Your task to perform on an android device: Go to privacy settings Image 0: 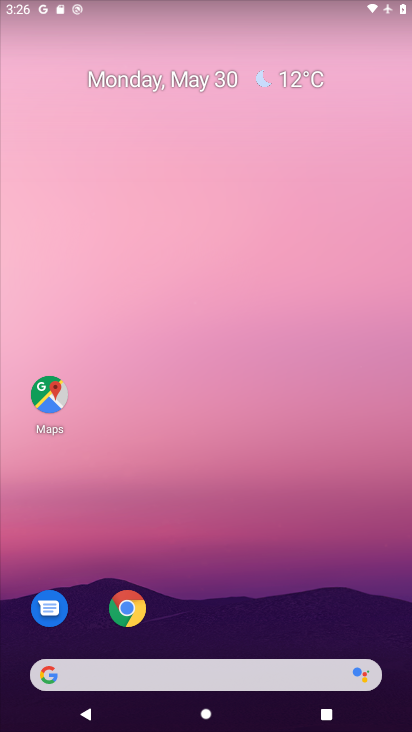
Step 0: drag from (278, 458) to (164, 2)
Your task to perform on an android device: Go to privacy settings Image 1: 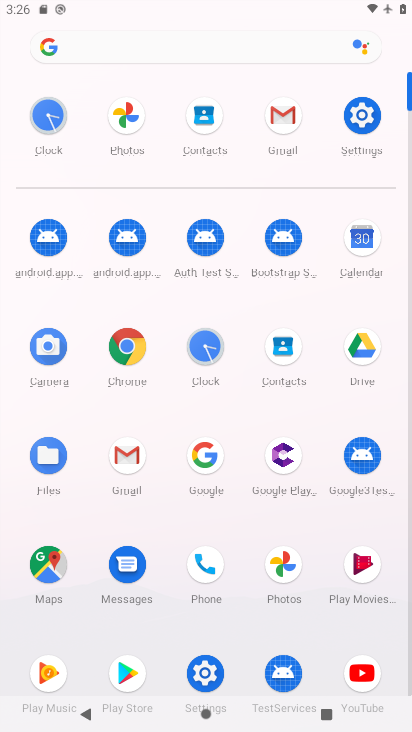
Step 1: click (362, 88)
Your task to perform on an android device: Go to privacy settings Image 2: 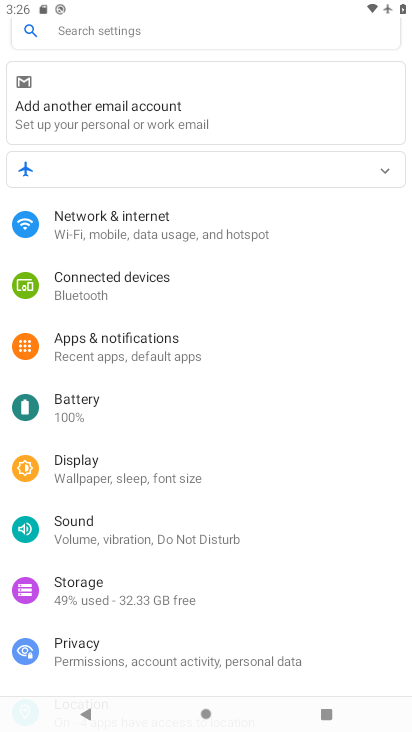
Step 2: click (150, 644)
Your task to perform on an android device: Go to privacy settings Image 3: 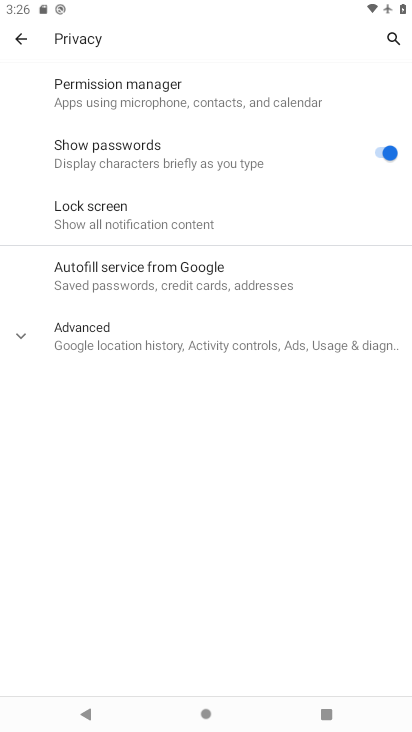
Step 3: task complete